Your task to perform on an android device: turn off priority inbox in the gmail app Image 0: 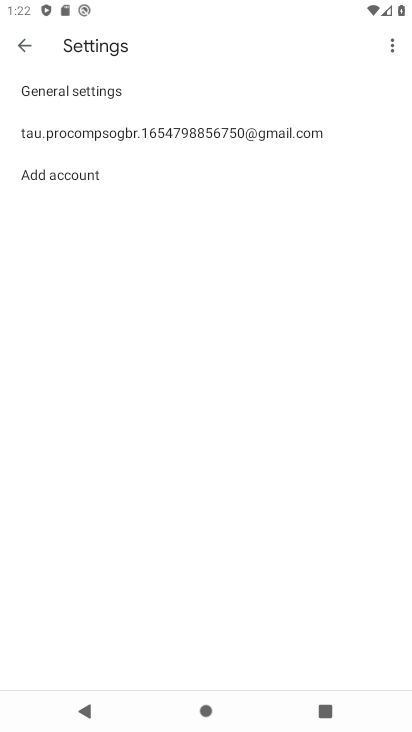
Step 0: click (249, 131)
Your task to perform on an android device: turn off priority inbox in the gmail app Image 1: 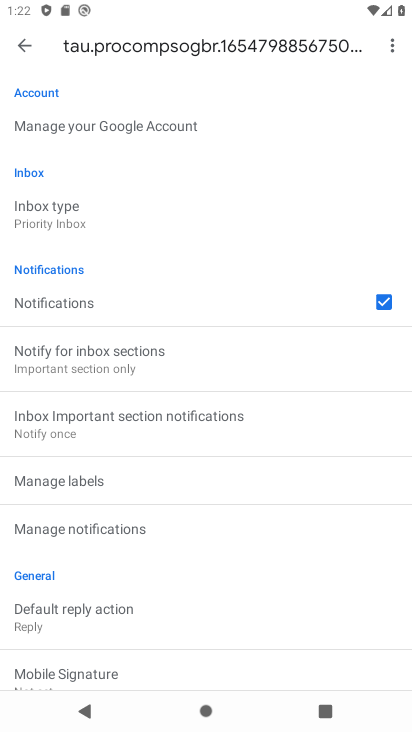
Step 1: click (113, 209)
Your task to perform on an android device: turn off priority inbox in the gmail app Image 2: 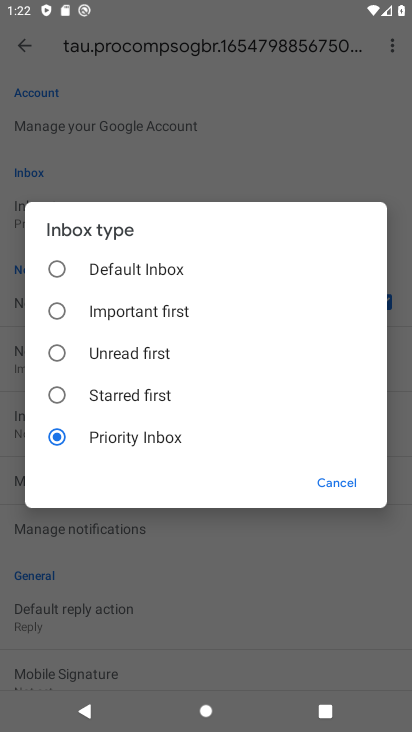
Step 2: click (181, 276)
Your task to perform on an android device: turn off priority inbox in the gmail app Image 3: 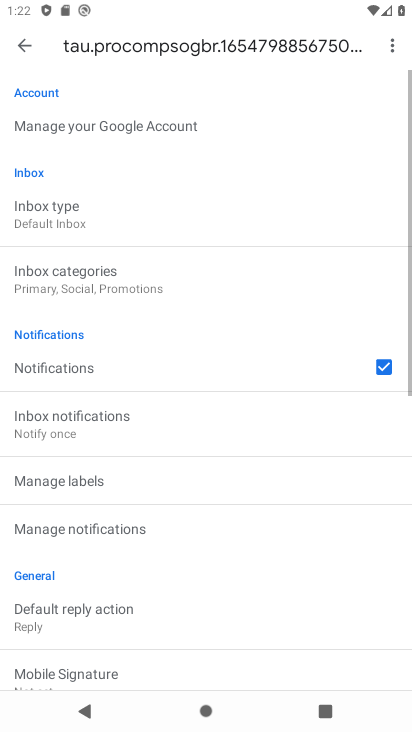
Step 3: task complete